Your task to perform on an android device: Open Google Image 0: 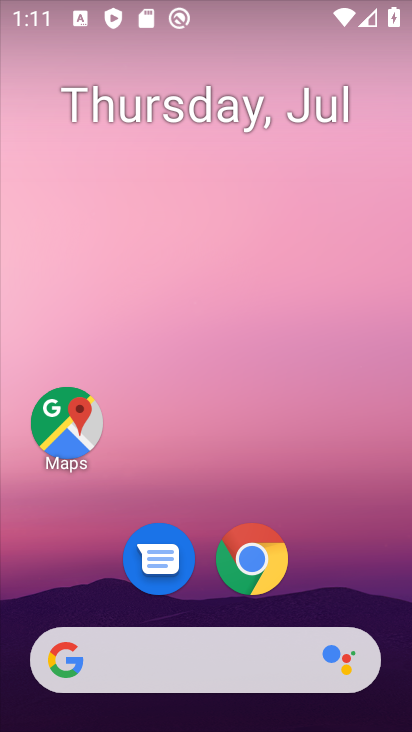
Step 0: drag from (189, 679) to (206, 168)
Your task to perform on an android device: Open Google Image 1: 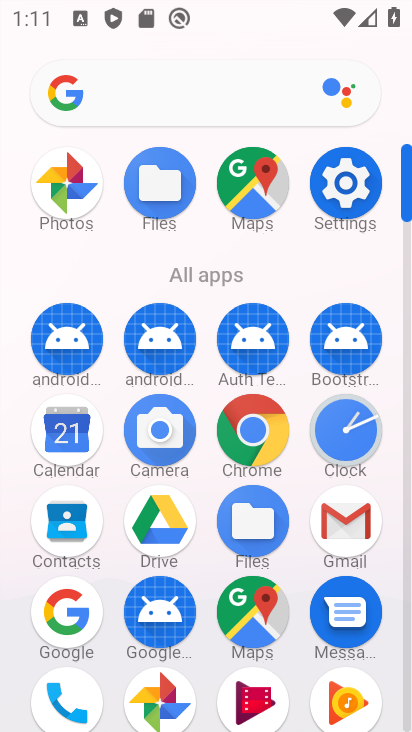
Step 1: click (54, 624)
Your task to perform on an android device: Open Google Image 2: 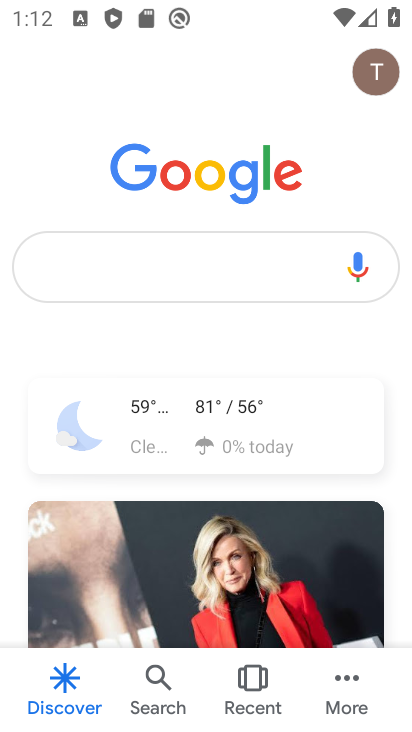
Step 2: task complete